Your task to perform on an android device: Go to sound settings Image 0: 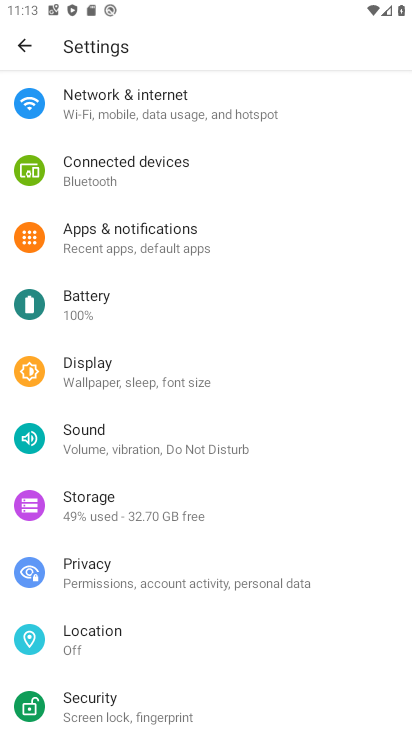
Step 0: press home button
Your task to perform on an android device: Go to sound settings Image 1: 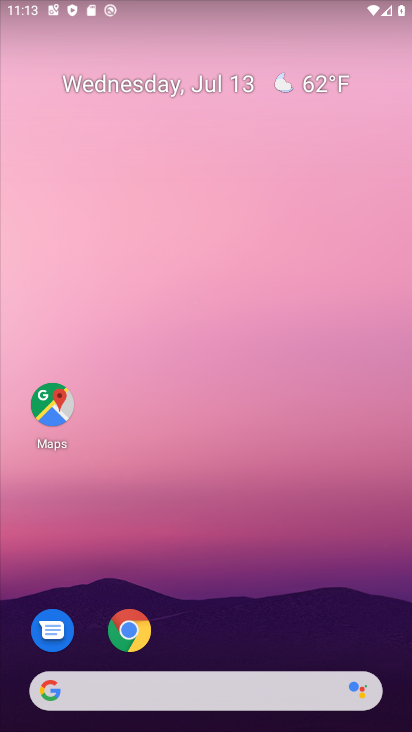
Step 1: drag from (216, 518) to (179, 19)
Your task to perform on an android device: Go to sound settings Image 2: 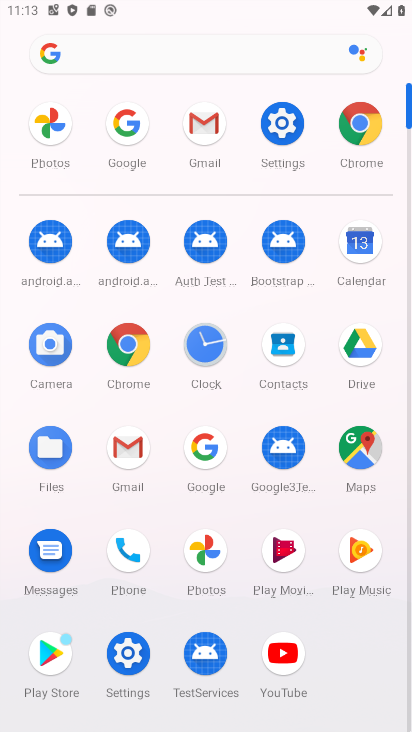
Step 2: click (274, 124)
Your task to perform on an android device: Go to sound settings Image 3: 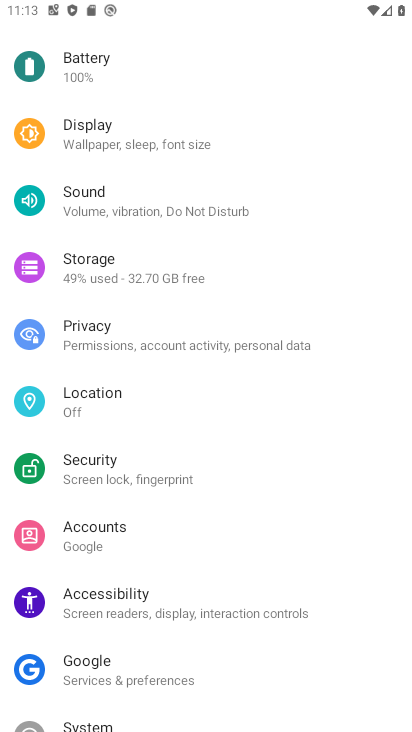
Step 3: drag from (217, 633) to (287, 210)
Your task to perform on an android device: Go to sound settings Image 4: 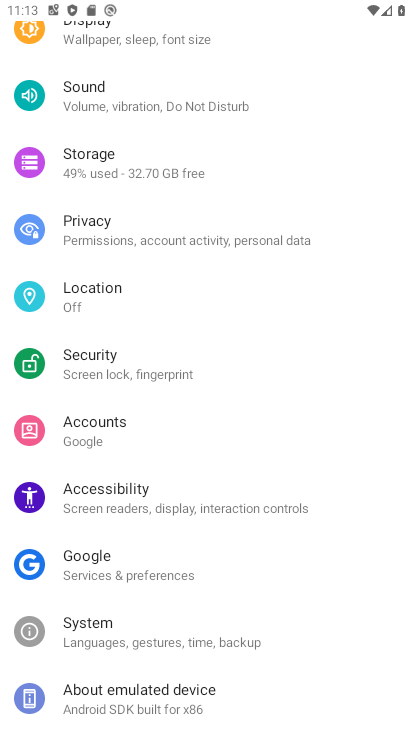
Step 4: drag from (214, 202) to (130, 559)
Your task to perform on an android device: Go to sound settings Image 5: 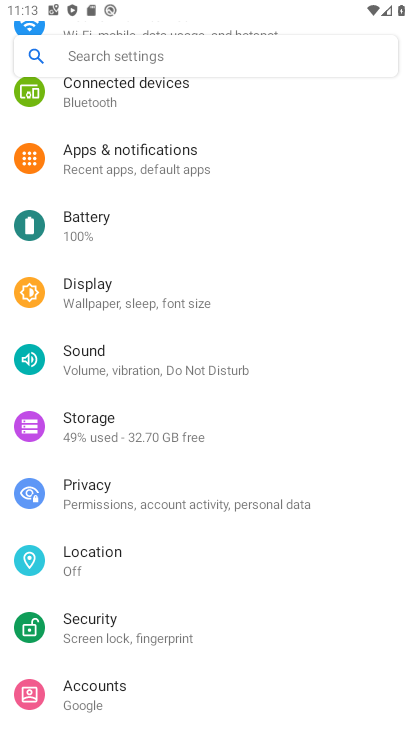
Step 5: click (87, 348)
Your task to perform on an android device: Go to sound settings Image 6: 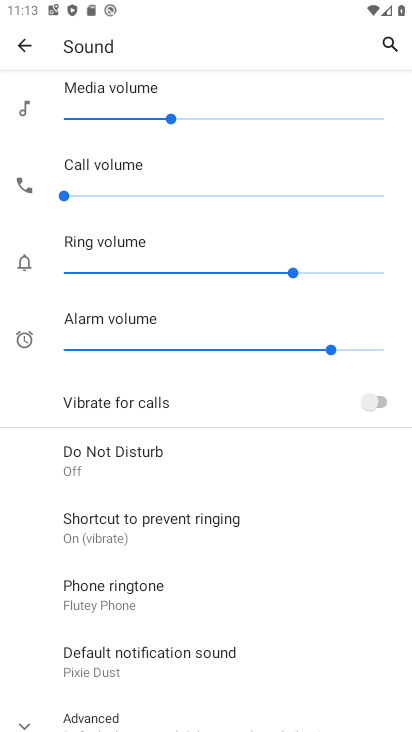
Step 6: task complete